Your task to perform on an android device: change keyboard looks Image 0: 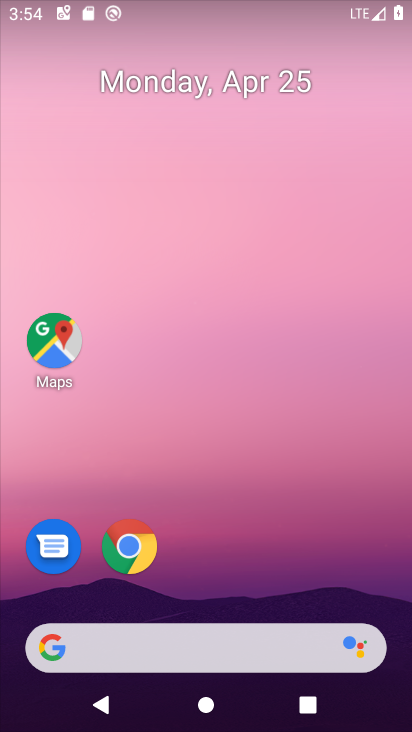
Step 0: drag from (240, 575) to (408, 60)
Your task to perform on an android device: change keyboard looks Image 1: 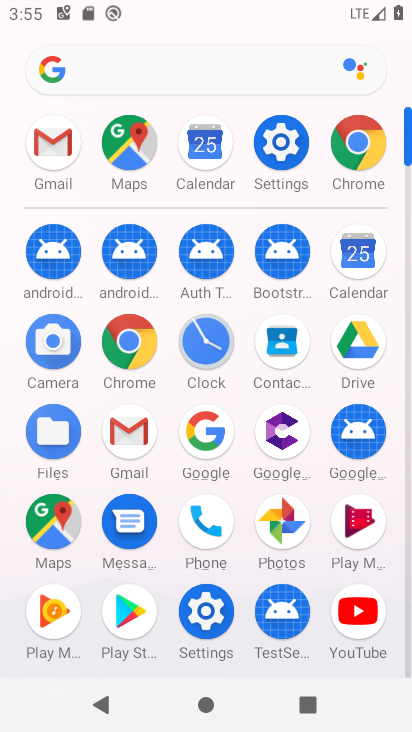
Step 1: click (270, 154)
Your task to perform on an android device: change keyboard looks Image 2: 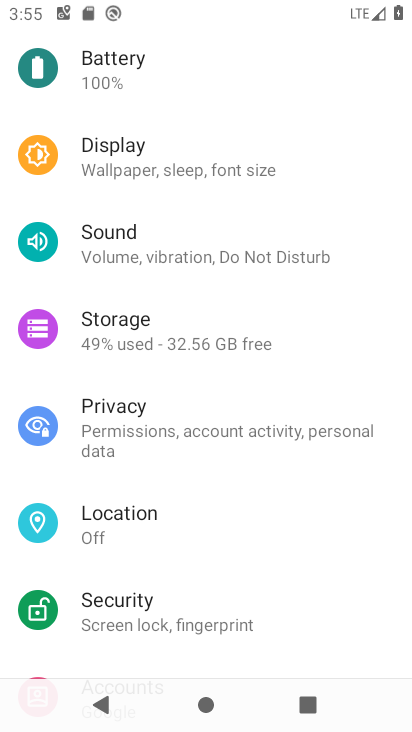
Step 2: drag from (191, 578) to (237, 238)
Your task to perform on an android device: change keyboard looks Image 3: 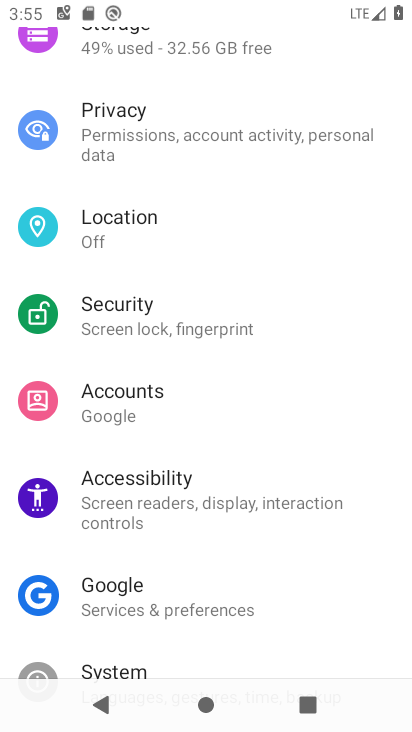
Step 3: drag from (169, 486) to (216, 171)
Your task to perform on an android device: change keyboard looks Image 4: 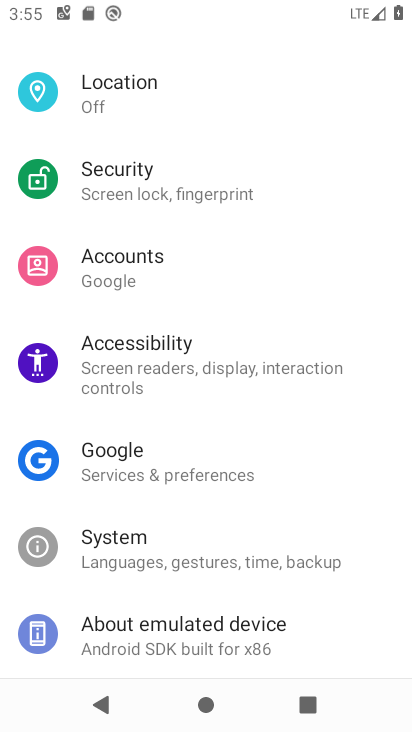
Step 4: click (157, 563)
Your task to perform on an android device: change keyboard looks Image 5: 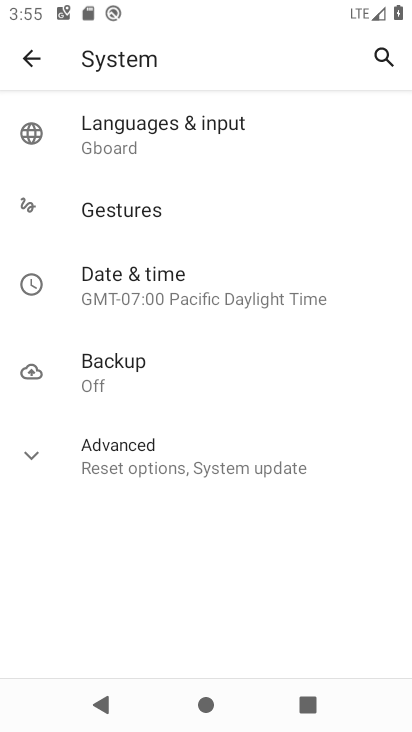
Step 5: click (153, 126)
Your task to perform on an android device: change keyboard looks Image 6: 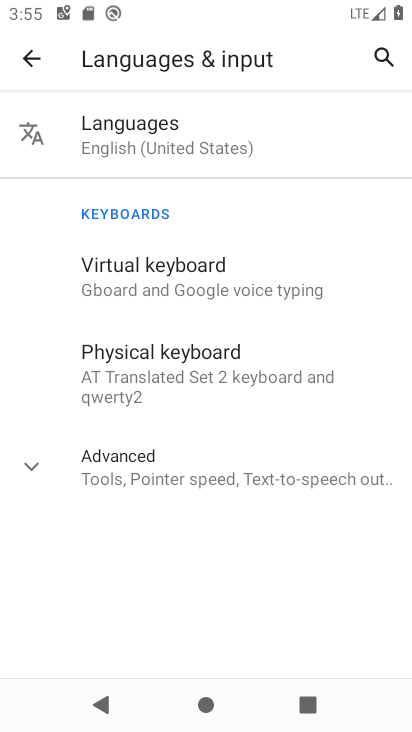
Step 6: click (148, 289)
Your task to perform on an android device: change keyboard looks Image 7: 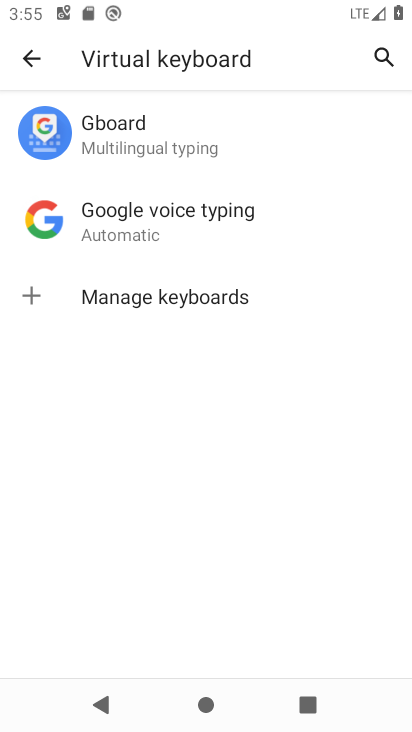
Step 7: click (150, 139)
Your task to perform on an android device: change keyboard looks Image 8: 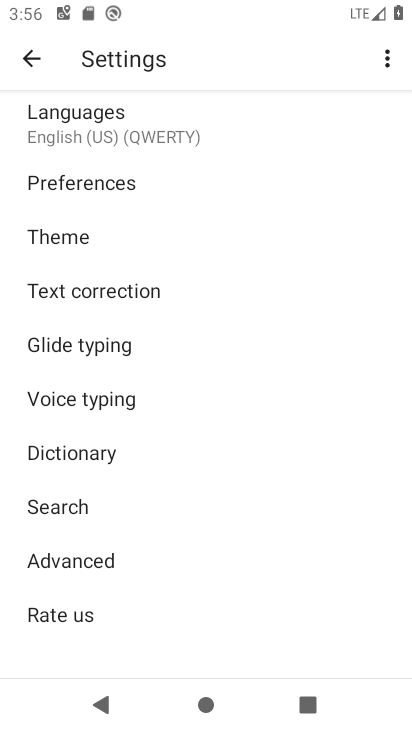
Step 8: click (72, 246)
Your task to perform on an android device: change keyboard looks Image 9: 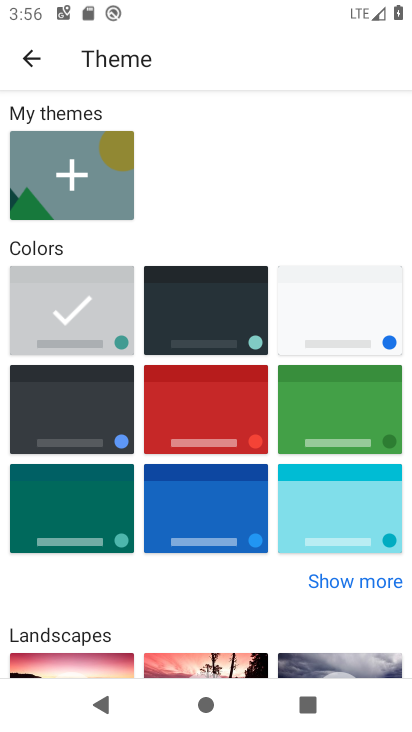
Step 9: click (167, 361)
Your task to perform on an android device: change keyboard looks Image 10: 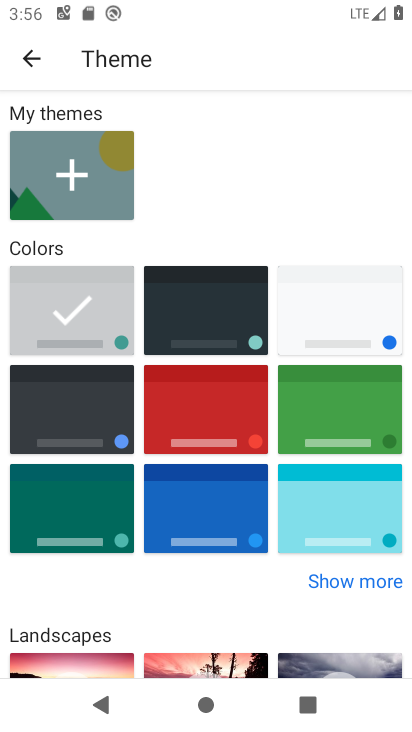
Step 10: click (169, 369)
Your task to perform on an android device: change keyboard looks Image 11: 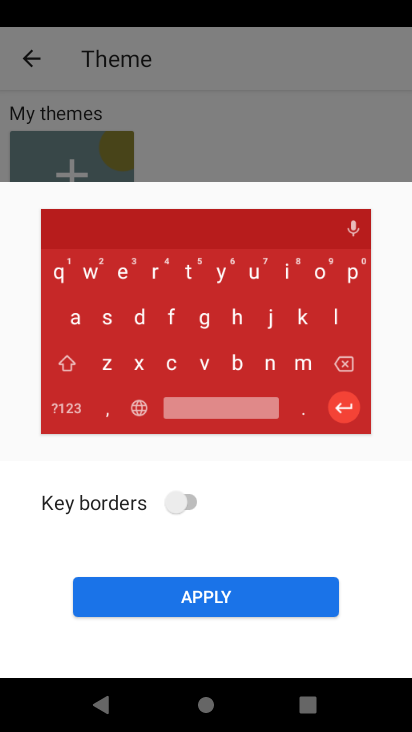
Step 11: click (206, 591)
Your task to perform on an android device: change keyboard looks Image 12: 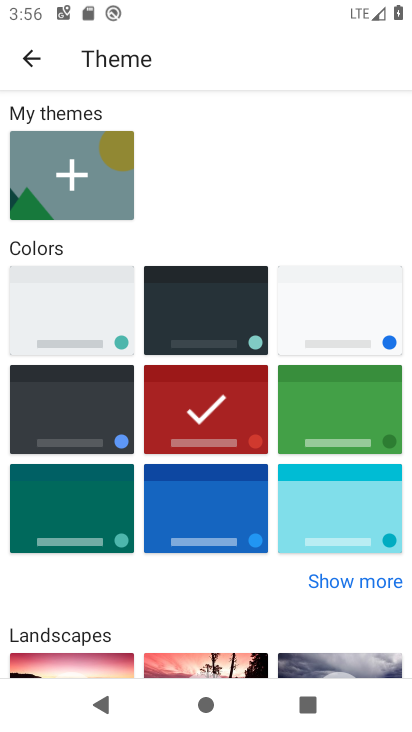
Step 12: task complete